Your task to perform on an android device: check battery use Image 0: 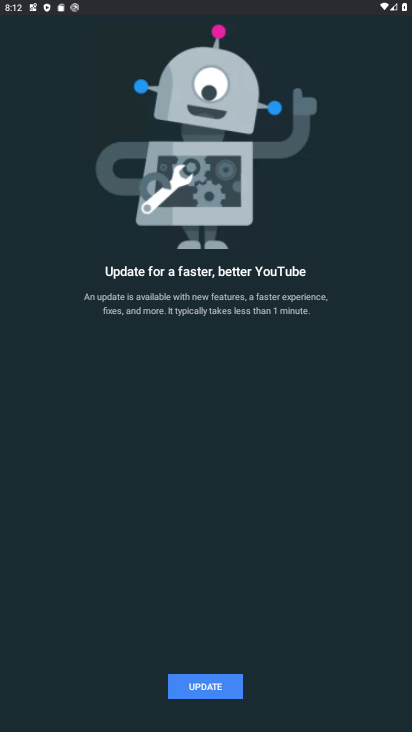
Step 0: press home button
Your task to perform on an android device: check battery use Image 1: 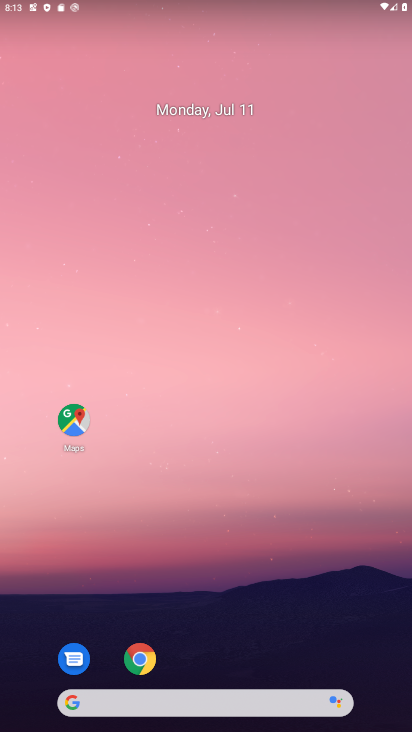
Step 1: drag from (126, 648) to (250, 181)
Your task to perform on an android device: check battery use Image 2: 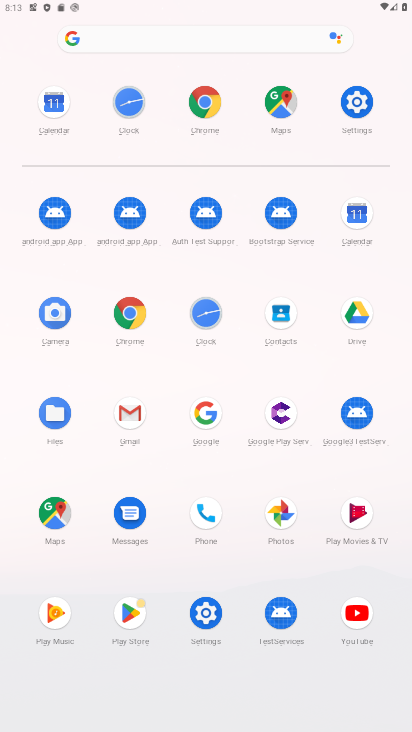
Step 2: click (356, 112)
Your task to perform on an android device: check battery use Image 3: 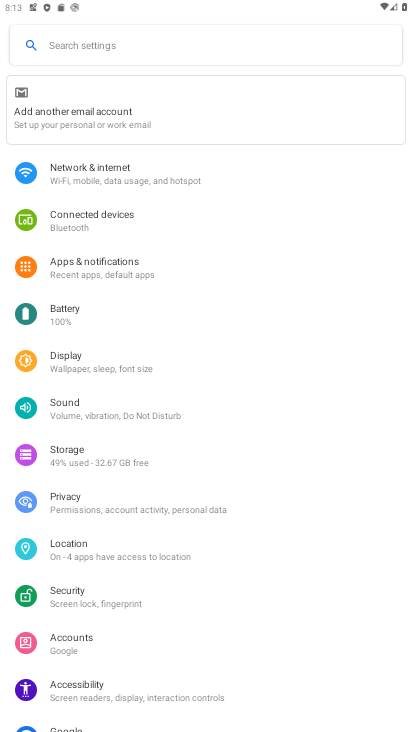
Step 3: click (78, 321)
Your task to perform on an android device: check battery use Image 4: 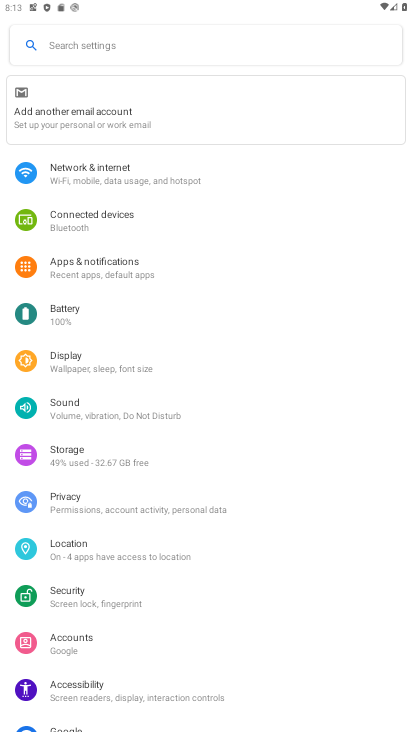
Step 4: click (77, 320)
Your task to perform on an android device: check battery use Image 5: 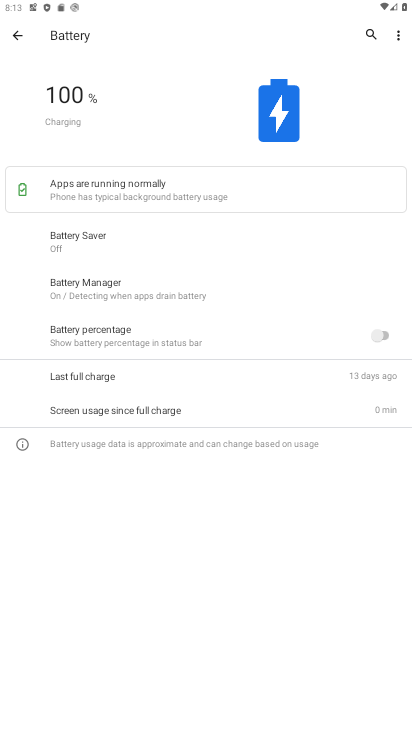
Step 5: drag from (147, 425) to (257, 207)
Your task to perform on an android device: check battery use Image 6: 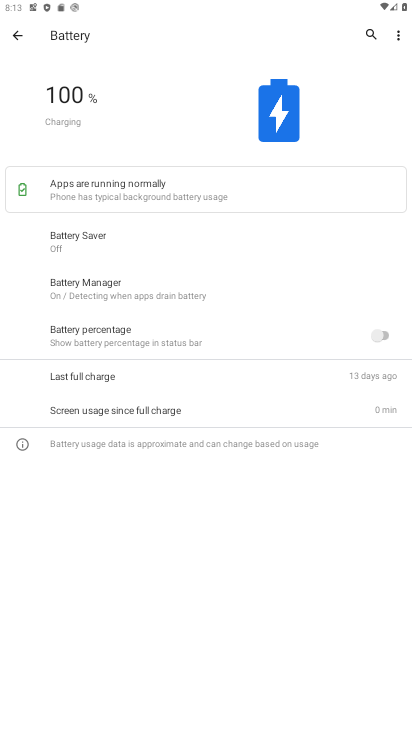
Step 6: click (397, 28)
Your task to perform on an android device: check battery use Image 7: 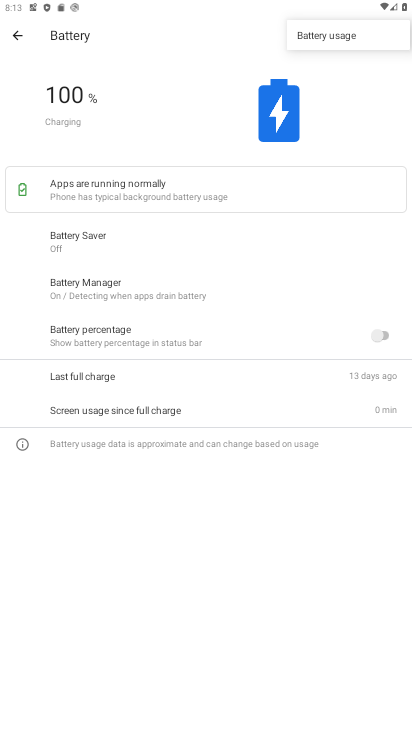
Step 7: click (326, 33)
Your task to perform on an android device: check battery use Image 8: 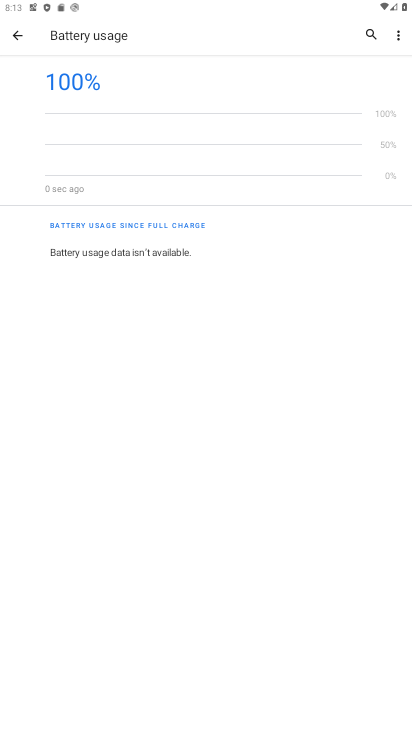
Step 8: task complete